Your task to perform on an android device: Go to Maps Image 0: 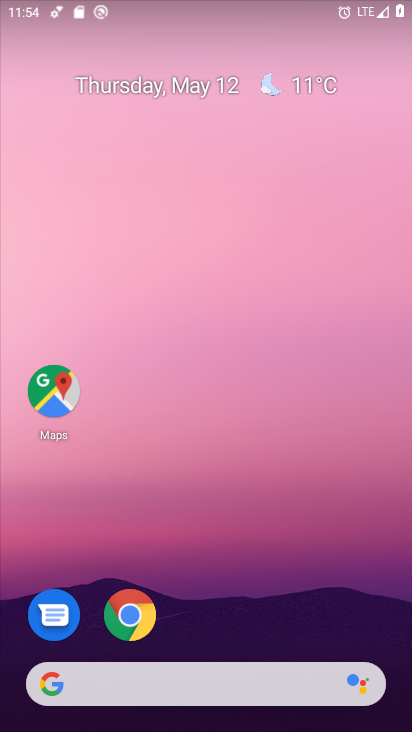
Step 0: click (54, 391)
Your task to perform on an android device: Go to Maps Image 1: 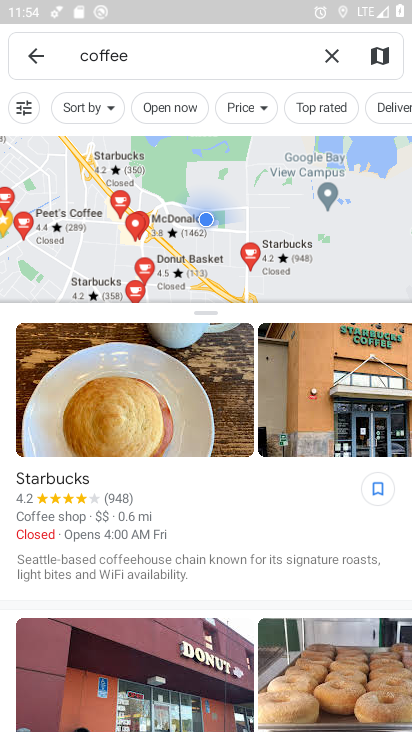
Step 1: click (330, 50)
Your task to perform on an android device: Go to Maps Image 2: 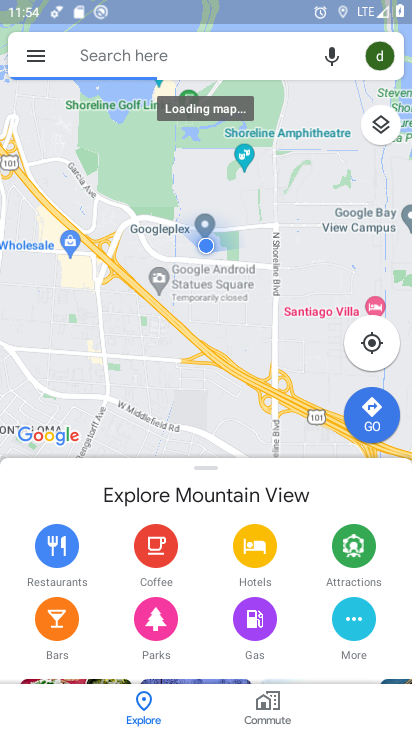
Step 2: task complete